Your task to perform on an android device: turn smart compose on in the gmail app Image 0: 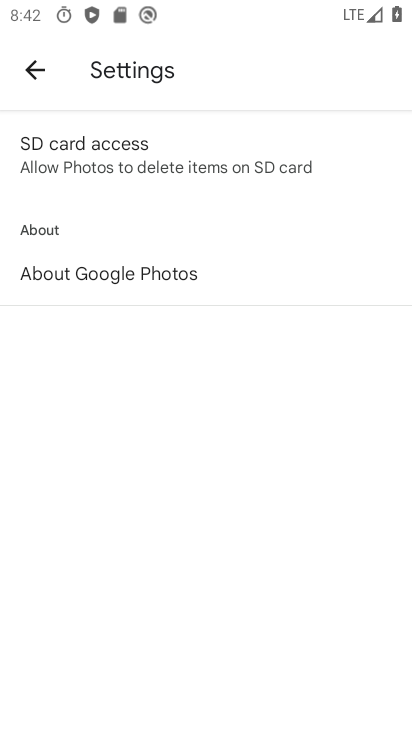
Step 0: press home button
Your task to perform on an android device: turn smart compose on in the gmail app Image 1: 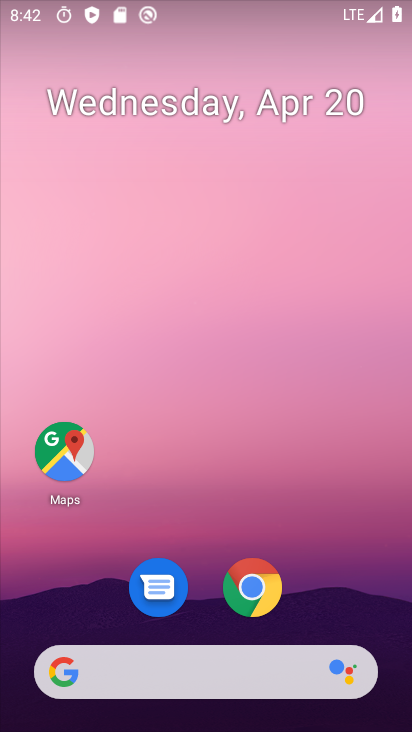
Step 1: drag from (335, 601) to (361, 188)
Your task to perform on an android device: turn smart compose on in the gmail app Image 2: 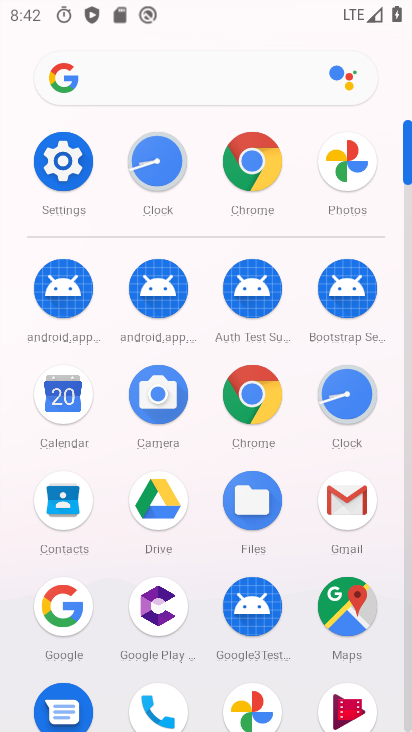
Step 2: click (340, 502)
Your task to perform on an android device: turn smart compose on in the gmail app Image 3: 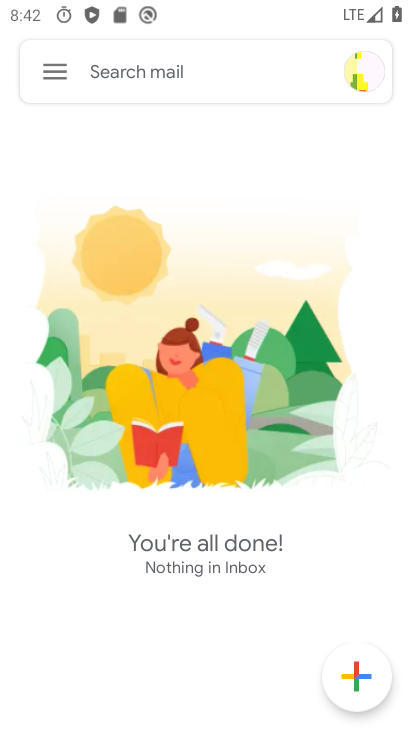
Step 3: click (57, 73)
Your task to perform on an android device: turn smart compose on in the gmail app Image 4: 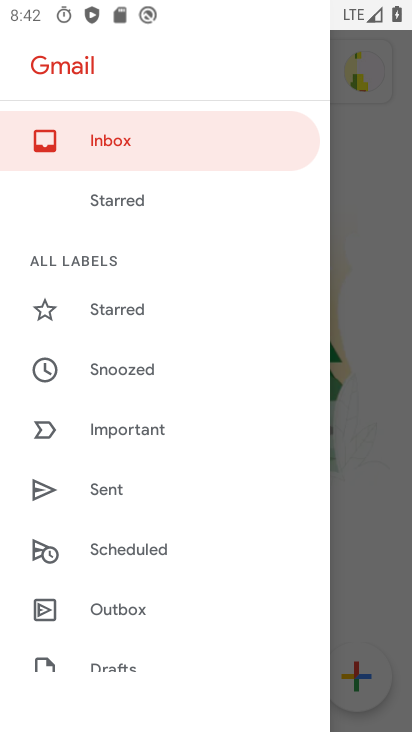
Step 4: drag from (254, 553) to (250, 428)
Your task to perform on an android device: turn smart compose on in the gmail app Image 5: 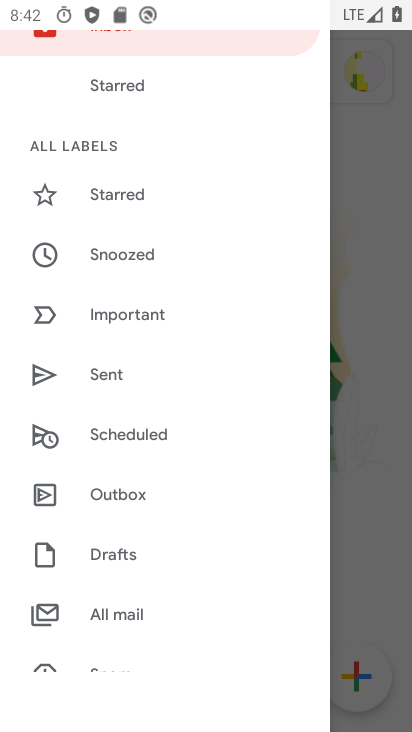
Step 5: drag from (250, 544) to (253, 412)
Your task to perform on an android device: turn smart compose on in the gmail app Image 6: 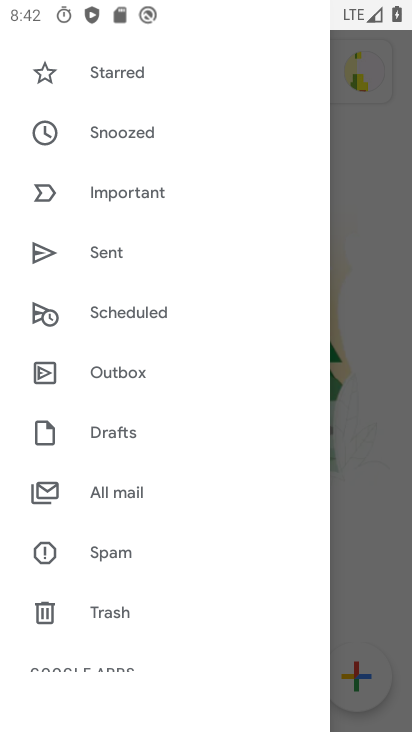
Step 6: drag from (257, 565) to (265, 381)
Your task to perform on an android device: turn smart compose on in the gmail app Image 7: 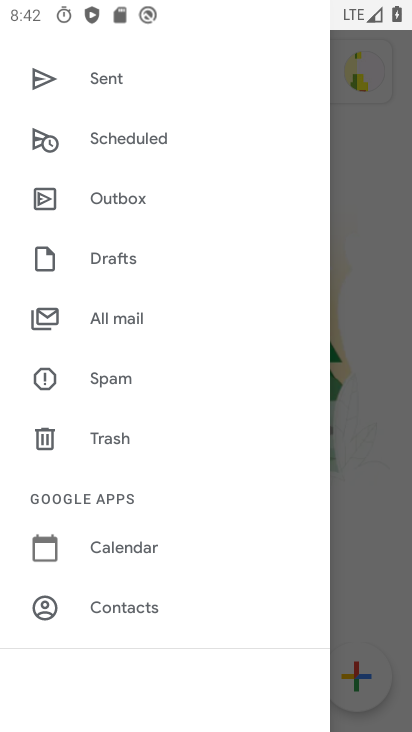
Step 7: drag from (245, 586) to (259, 442)
Your task to perform on an android device: turn smart compose on in the gmail app Image 8: 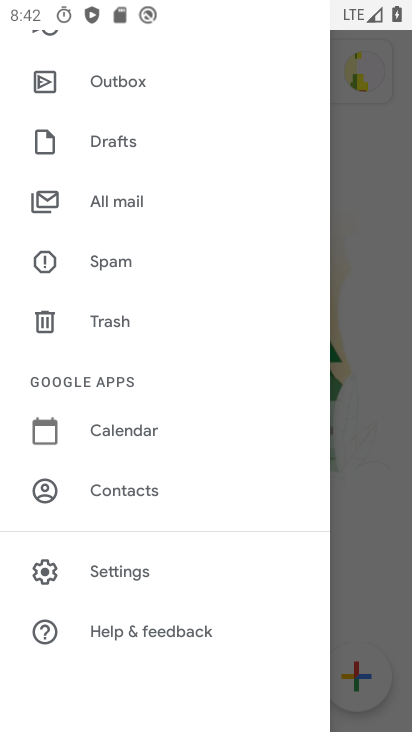
Step 8: click (136, 569)
Your task to perform on an android device: turn smart compose on in the gmail app Image 9: 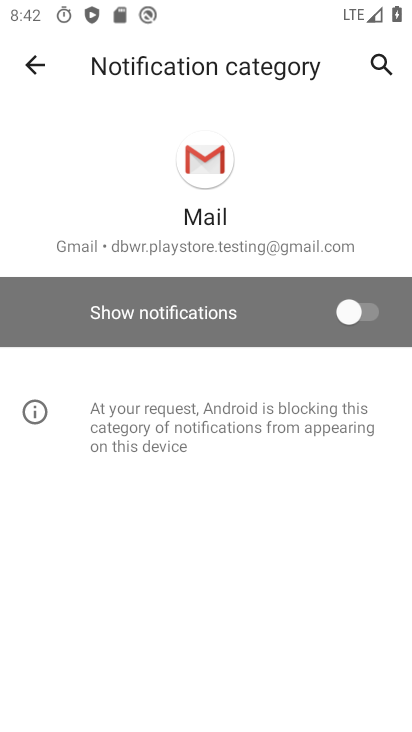
Step 9: click (33, 66)
Your task to perform on an android device: turn smart compose on in the gmail app Image 10: 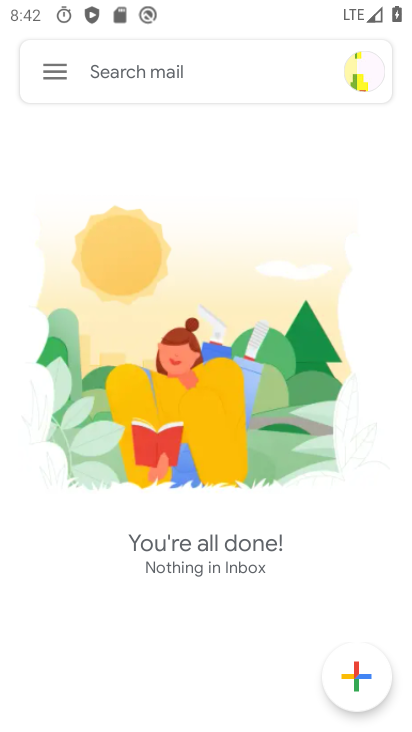
Step 10: click (43, 70)
Your task to perform on an android device: turn smart compose on in the gmail app Image 11: 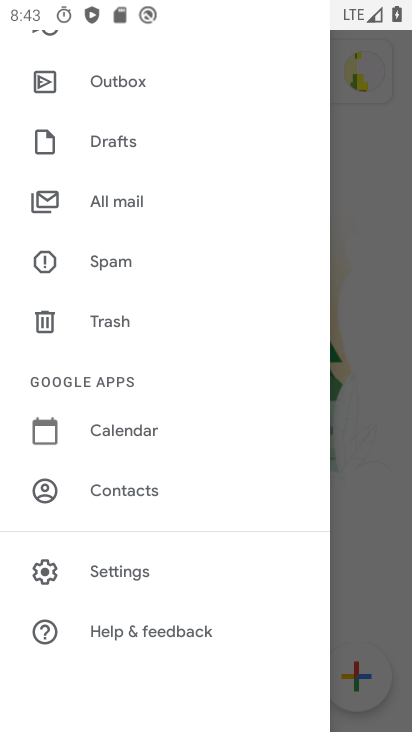
Step 11: click (138, 572)
Your task to perform on an android device: turn smart compose on in the gmail app Image 12: 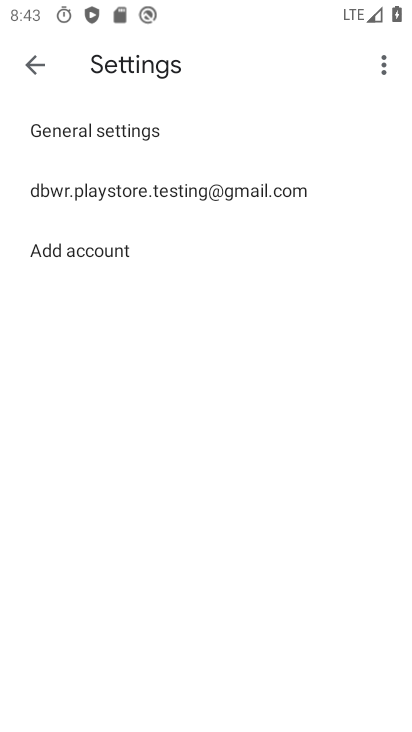
Step 12: click (203, 193)
Your task to perform on an android device: turn smart compose on in the gmail app Image 13: 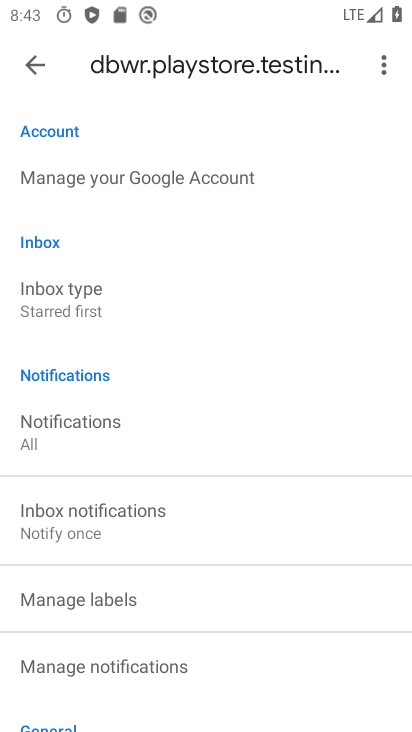
Step 13: task complete